Your task to perform on an android device: turn off data saver in the chrome app Image 0: 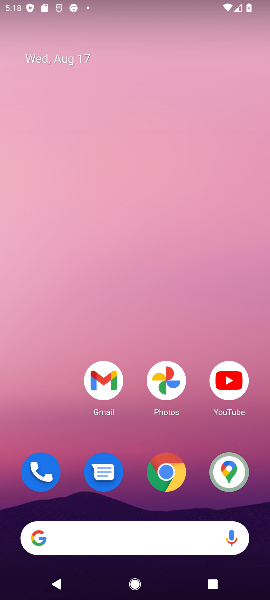
Step 0: click (160, 473)
Your task to perform on an android device: turn off data saver in the chrome app Image 1: 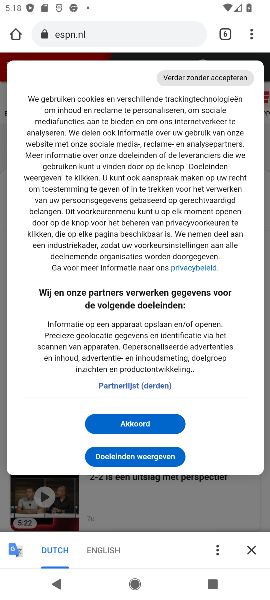
Step 1: click (254, 42)
Your task to perform on an android device: turn off data saver in the chrome app Image 2: 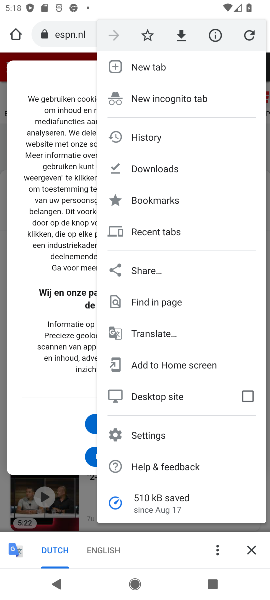
Step 2: click (157, 426)
Your task to perform on an android device: turn off data saver in the chrome app Image 3: 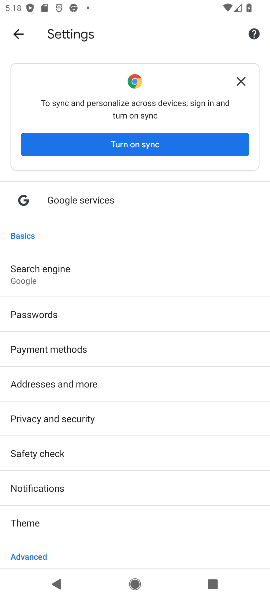
Step 3: drag from (107, 501) to (113, 311)
Your task to perform on an android device: turn off data saver in the chrome app Image 4: 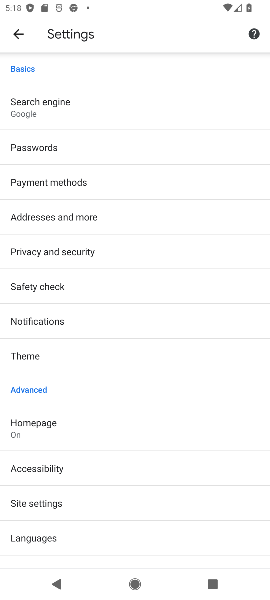
Step 4: drag from (120, 493) to (138, 282)
Your task to perform on an android device: turn off data saver in the chrome app Image 5: 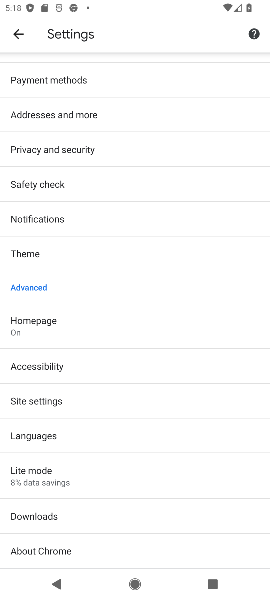
Step 5: click (76, 408)
Your task to perform on an android device: turn off data saver in the chrome app Image 6: 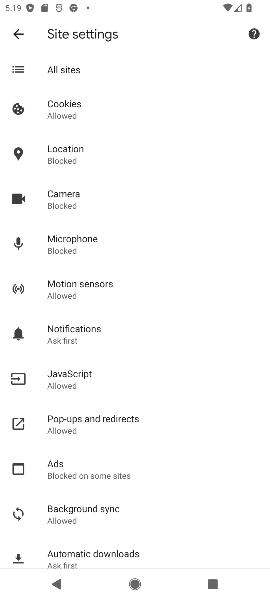
Step 6: click (16, 33)
Your task to perform on an android device: turn off data saver in the chrome app Image 7: 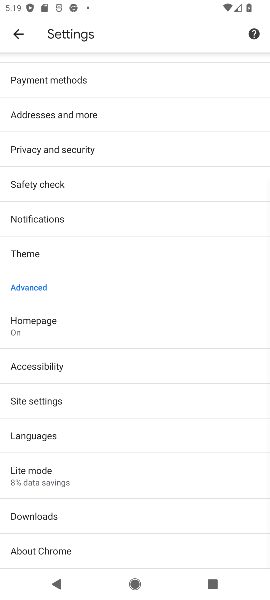
Step 7: click (87, 475)
Your task to perform on an android device: turn off data saver in the chrome app Image 8: 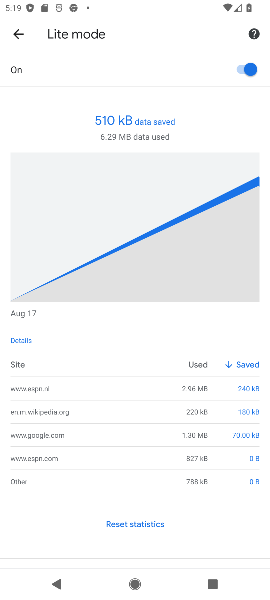
Step 8: click (237, 65)
Your task to perform on an android device: turn off data saver in the chrome app Image 9: 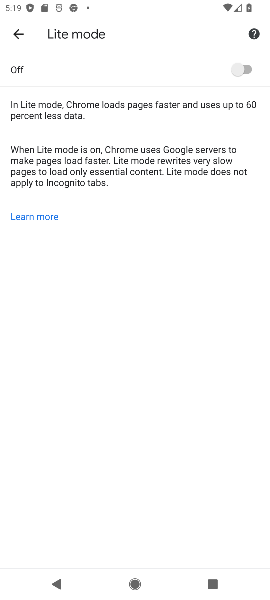
Step 9: task complete